Your task to perform on an android device: turn on data saver in the chrome app Image 0: 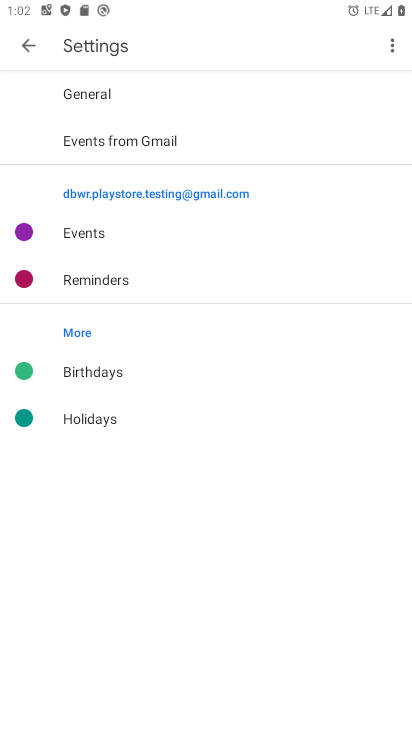
Step 0: press home button
Your task to perform on an android device: turn on data saver in the chrome app Image 1: 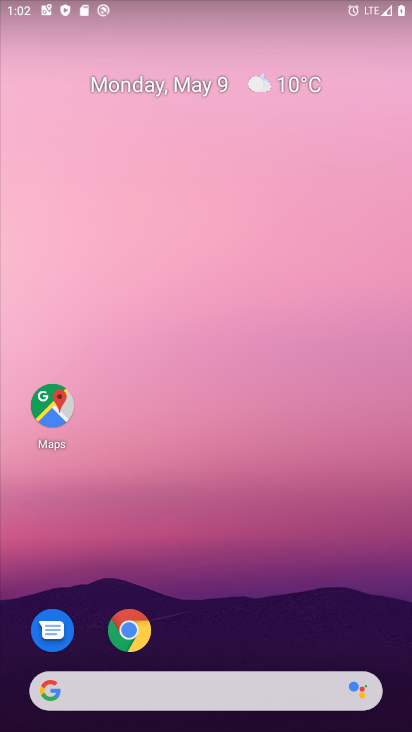
Step 1: drag from (315, 668) to (318, 226)
Your task to perform on an android device: turn on data saver in the chrome app Image 2: 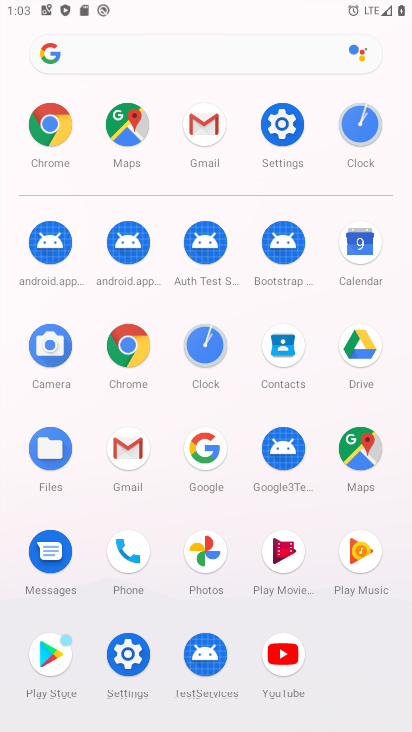
Step 2: click (64, 132)
Your task to perform on an android device: turn on data saver in the chrome app Image 3: 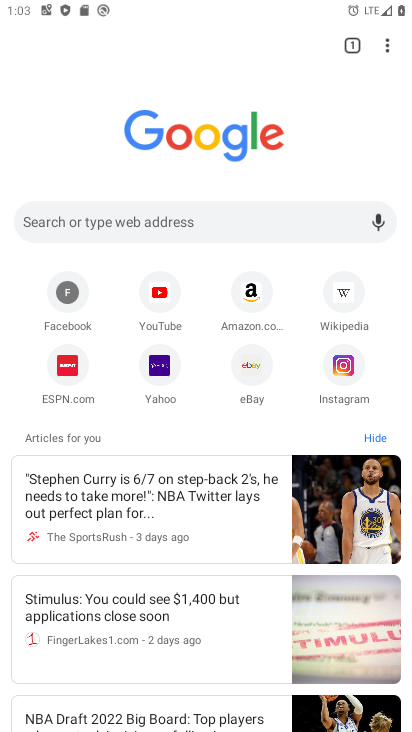
Step 3: click (395, 41)
Your task to perform on an android device: turn on data saver in the chrome app Image 4: 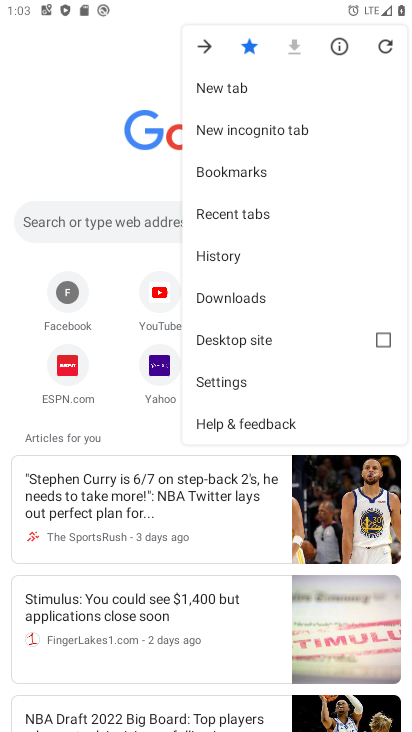
Step 4: click (259, 384)
Your task to perform on an android device: turn on data saver in the chrome app Image 5: 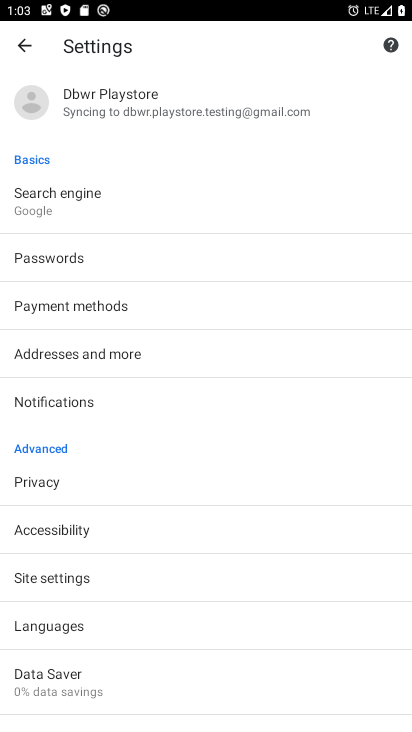
Step 5: click (186, 692)
Your task to perform on an android device: turn on data saver in the chrome app Image 6: 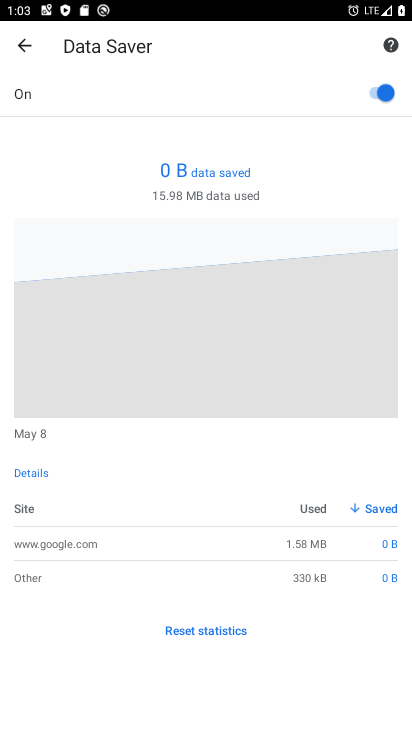
Step 6: task complete